Your task to perform on an android device: turn on showing notifications on the lock screen Image 0: 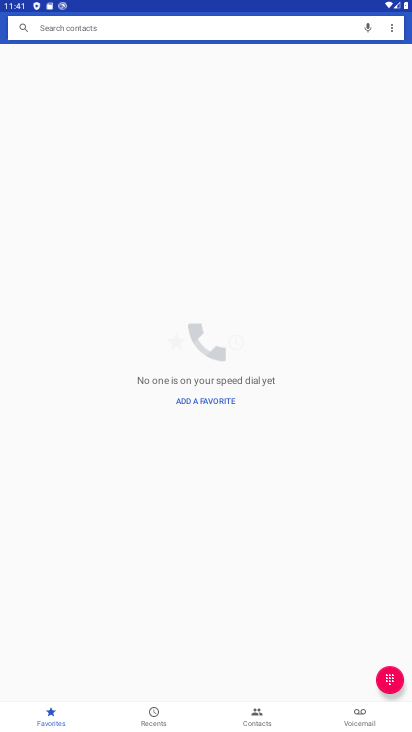
Step 0: press home button
Your task to perform on an android device: turn on showing notifications on the lock screen Image 1: 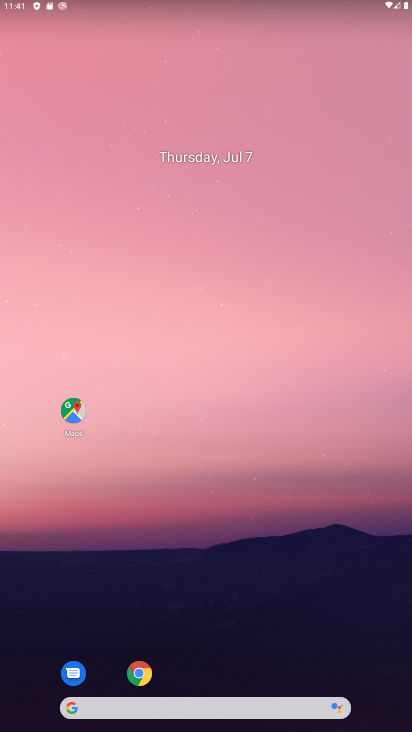
Step 1: drag from (226, 545) to (288, 265)
Your task to perform on an android device: turn on showing notifications on the lock screen Image 2: 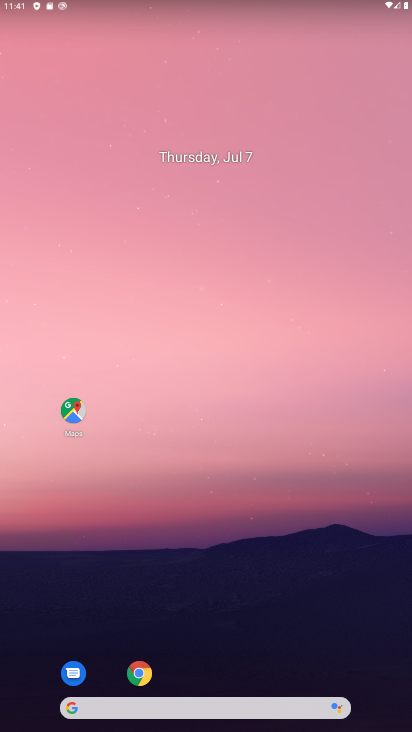
Step 2: click (294, 279)
Your task to perform on an android device: turn on showing notifications on the lock screen Image 3: 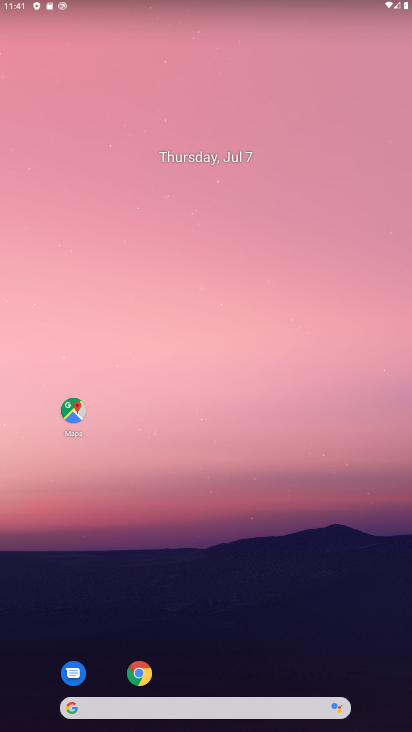
Step 3: click (271, 585)
Your task to perform on an android device: turn on showing notifications on the lock screen Image 4: 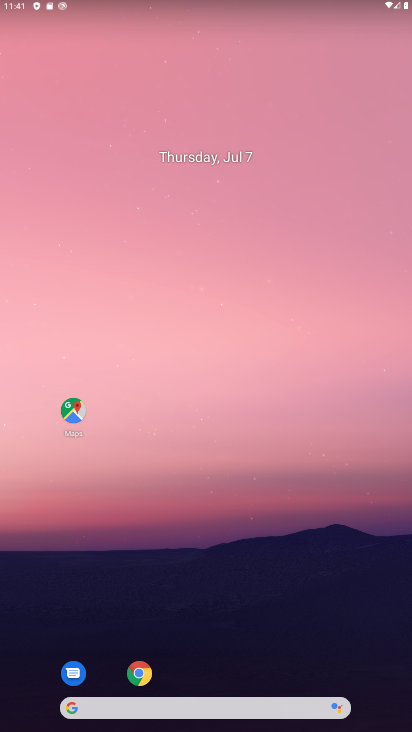
Step 4: click (272, 575)
Your task to perform on an android device: turn on showing notifications on the lock screen Image 5: 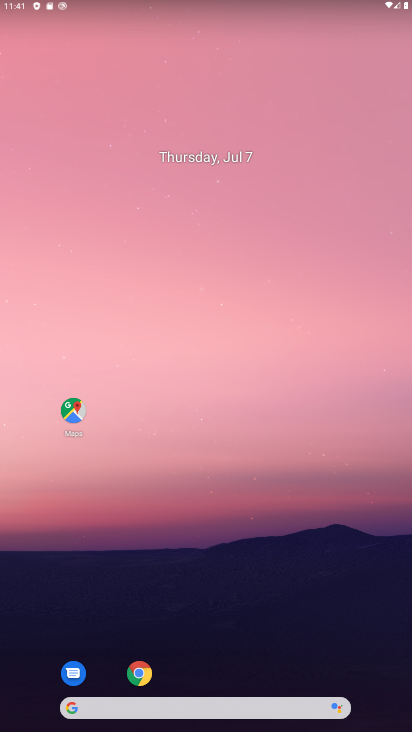
Step 5: drag from (273, 566) to (281, 213)
Your task to perform on an android device: turn on showing notifications on the lock screen Image 6: 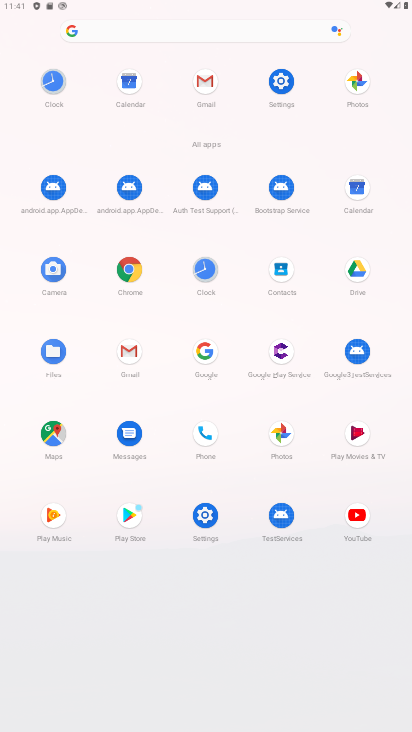
Step 6: click (282, 67)
Your task to perform on an android device: turn on showing notifications on the lock screen Image 7: 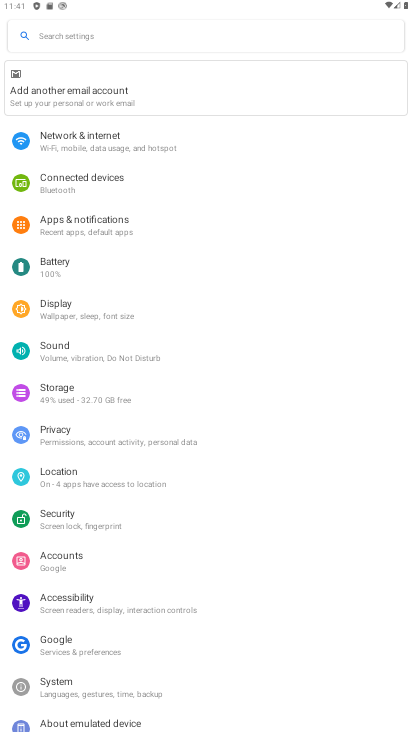
Step 7: click (98, 230)
Your task to perform on an android device: turn on showing notifications on the lock screen Image 8: 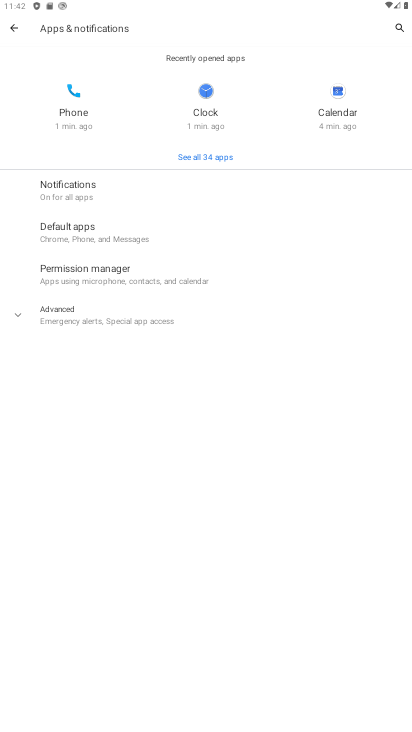
Step 8: click (95, 192)
Your task to perform on an android device: turn on showing notifications on the lock screen Image 9: 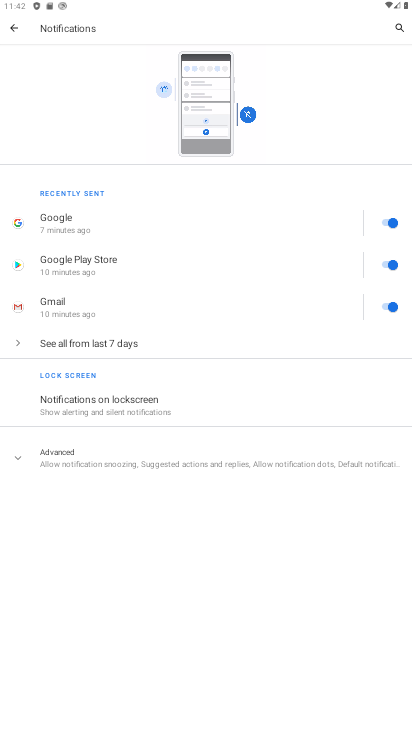
Step 9: click (13, 25)
Your task to perform on an android device: turn on showing notifications on the lock screen Image 10: 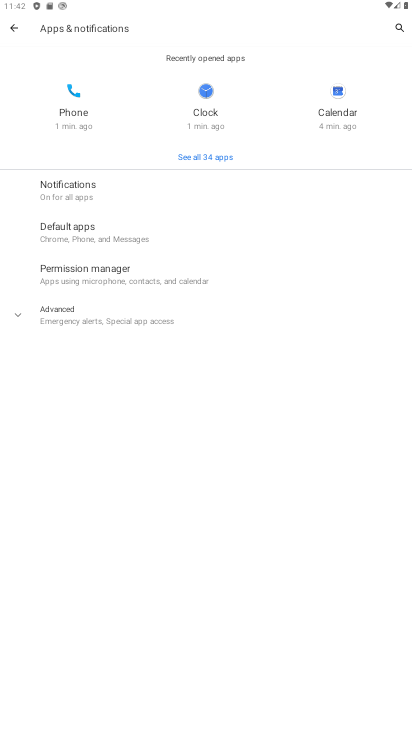
Step 10: click (199, 103)
Your task to perform on an android device: turn on showing notifications on the lock screen Image 11: 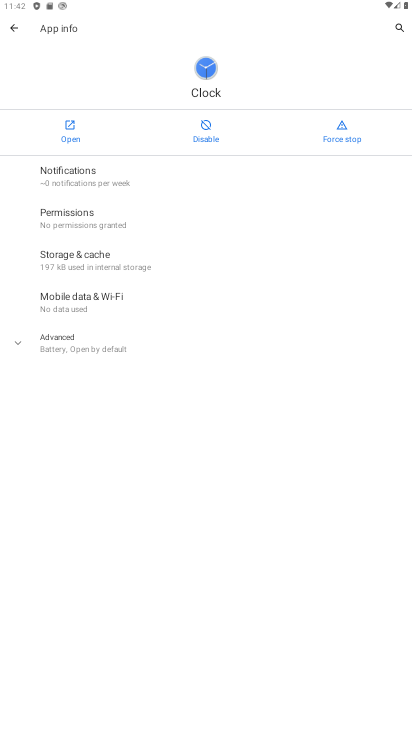
Step 11: task complete